Your task to perform on an android device: toggle data saver in the chrome app Image 0: 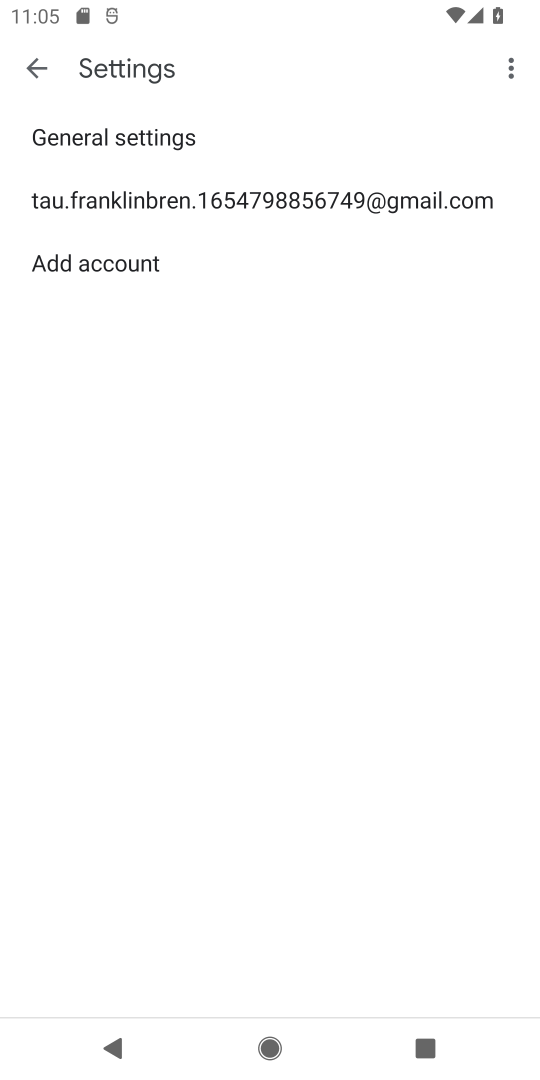
Step 0: press home button
Your task to perform on an android device: toggle data saver in the chrome app Image 1: 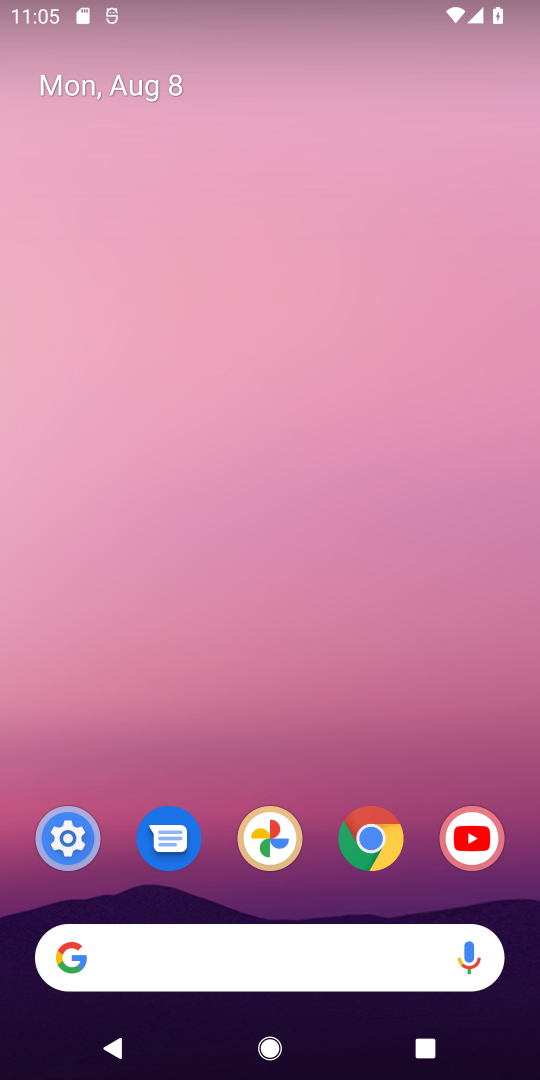
Step 1: drag from (411, 734) to (329, 324)
Your task to perform on an android device: toggle data saver in the chrome app Image 2: 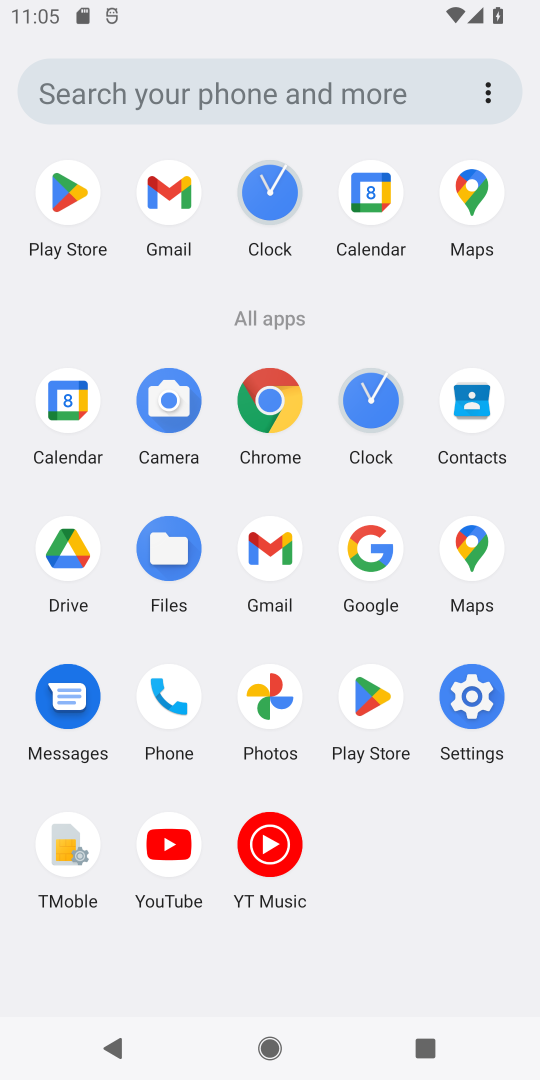
Step 2: click (277, 536)
Your task to perform on an android device: toggle data saver in the chrome app Image 3: 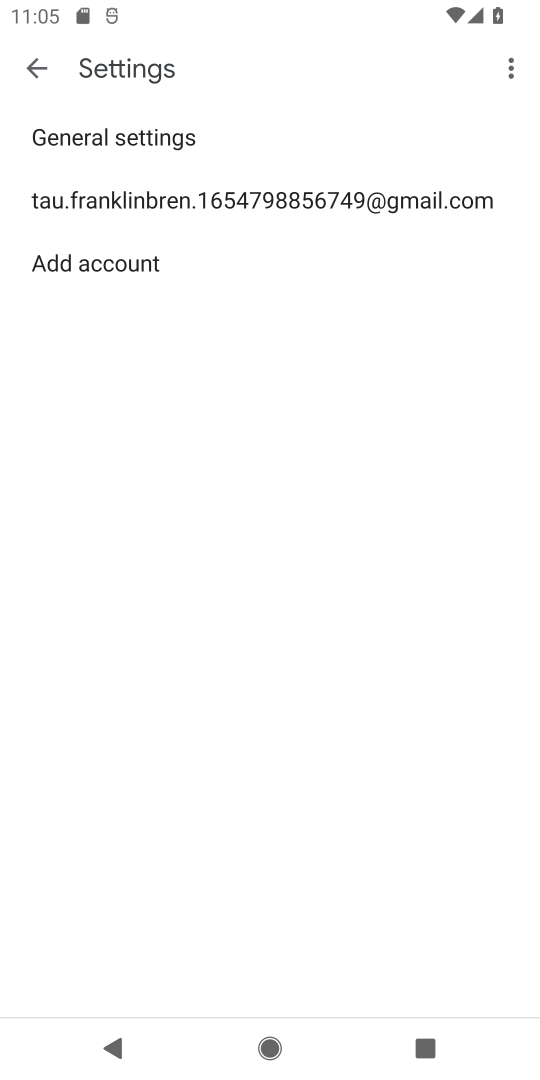
Step 3: click (330, 183)
Your task to perform on an android device: toggle data saver in the chrome app Image 4: 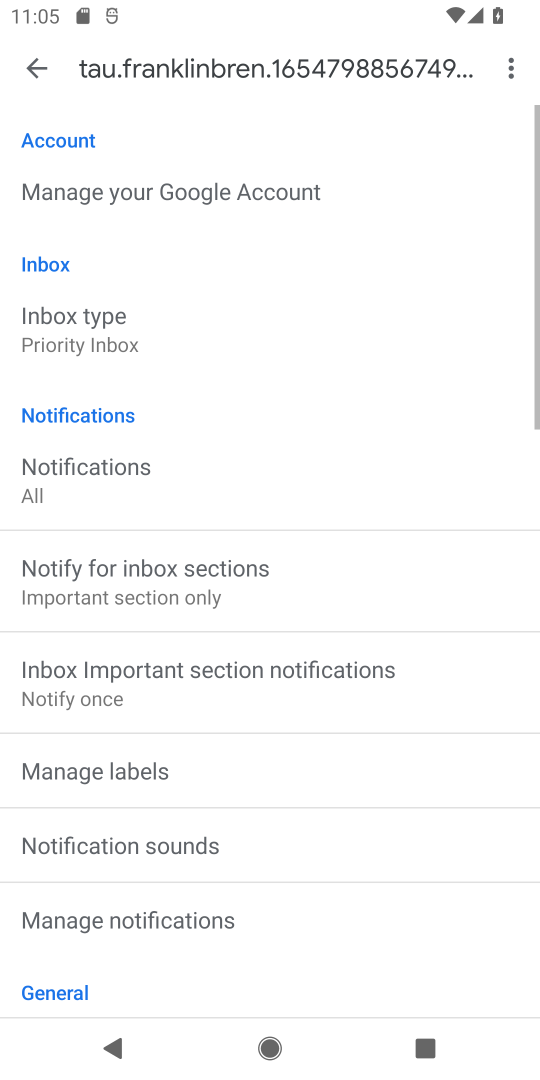
Step 4: click (23, 57)
Your task to perform on an android device: toggle data saver in the chrome app Image 5: 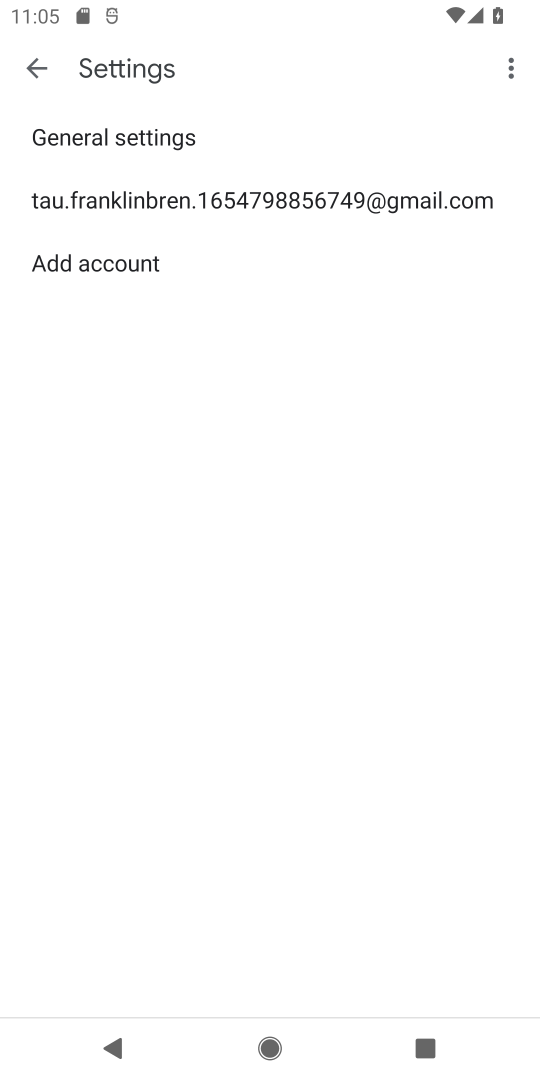
Step 5: click (23, 57)
Your task to perform on an android device: toggle data saver in the chrome app Image 6: 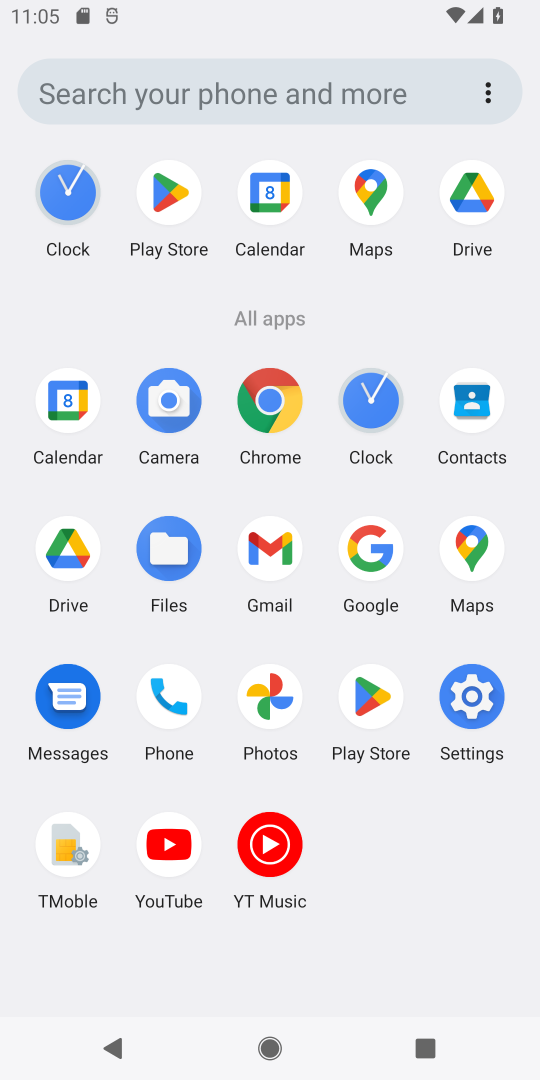
Step 6: click (249, 542)
Your task to perform on an android device: toggle data saver in the chrome app Image 7: 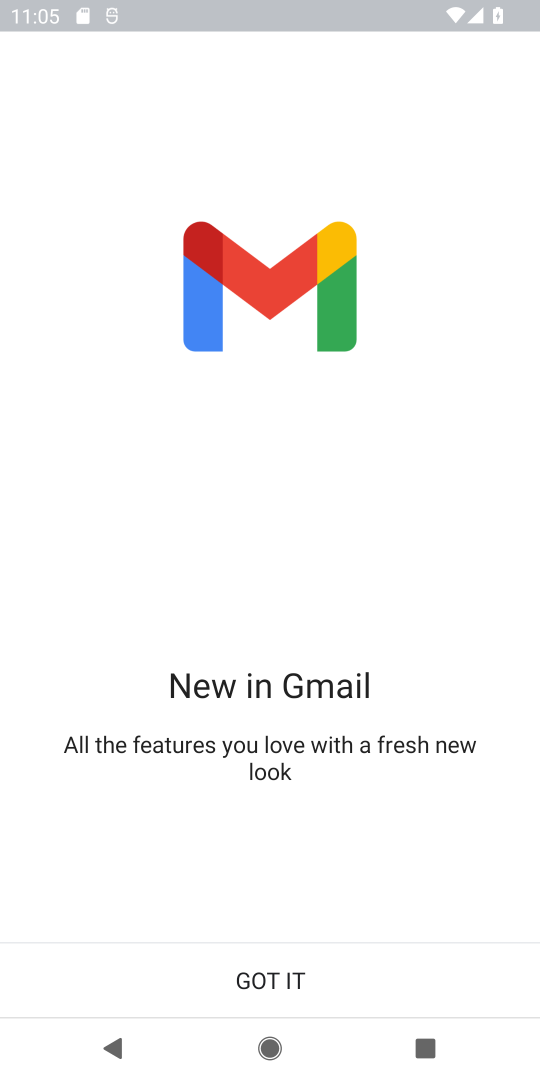
Step 7: click (327, 960)
Your task to perform on an android device: toggle data saver in the chrome app Image 8: 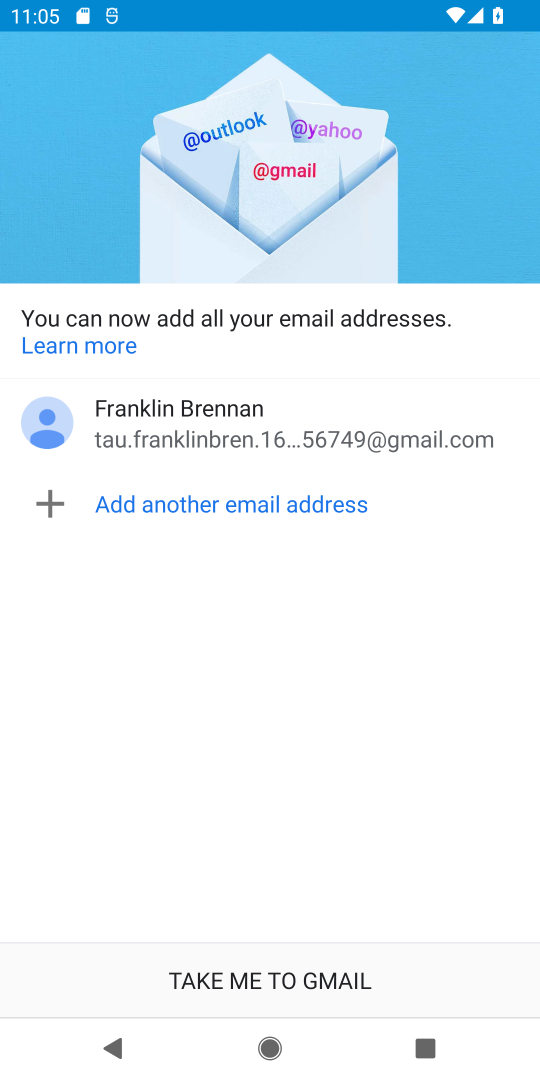
Step 8: click (309, 977)
Your task to perform on an android device: toggle data saver in the chrome app Image 9: 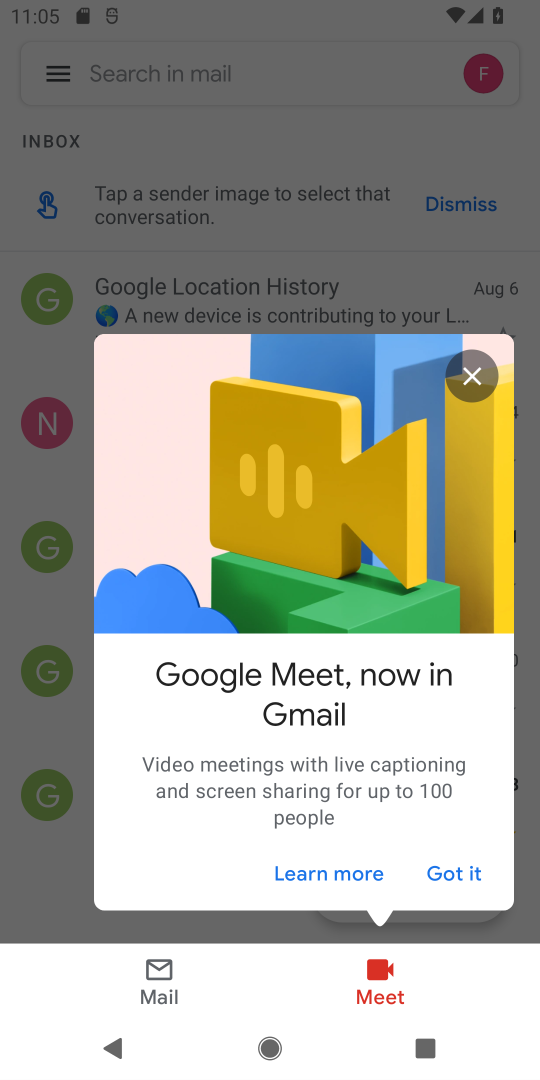
Step 9: click (487, 376)
Your task to perform on an android device: toggle data saver in the chrome app Image 10: 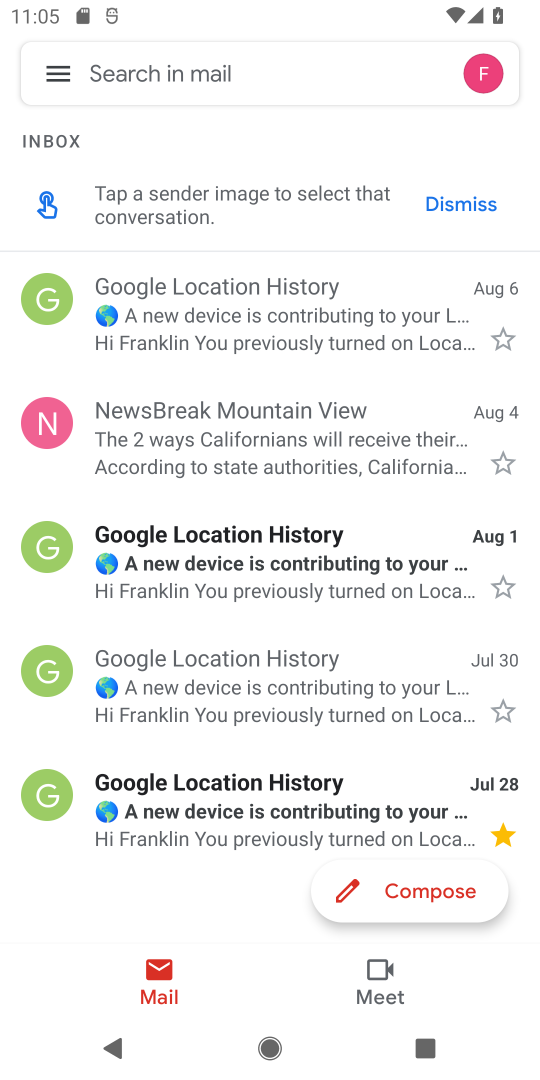
Step 10: press home button
Your task to perform on an android device: toggle data saver in the chrome app Image 11: 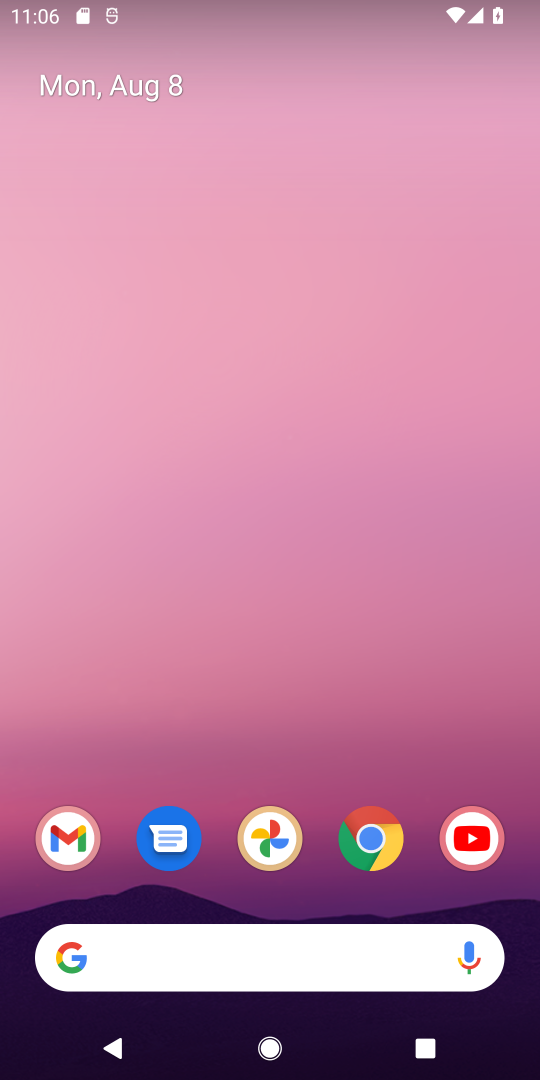
Step 11: click (362, 833)
Your task to perform on an android device: toggle data saver in the chrome app Image 12: 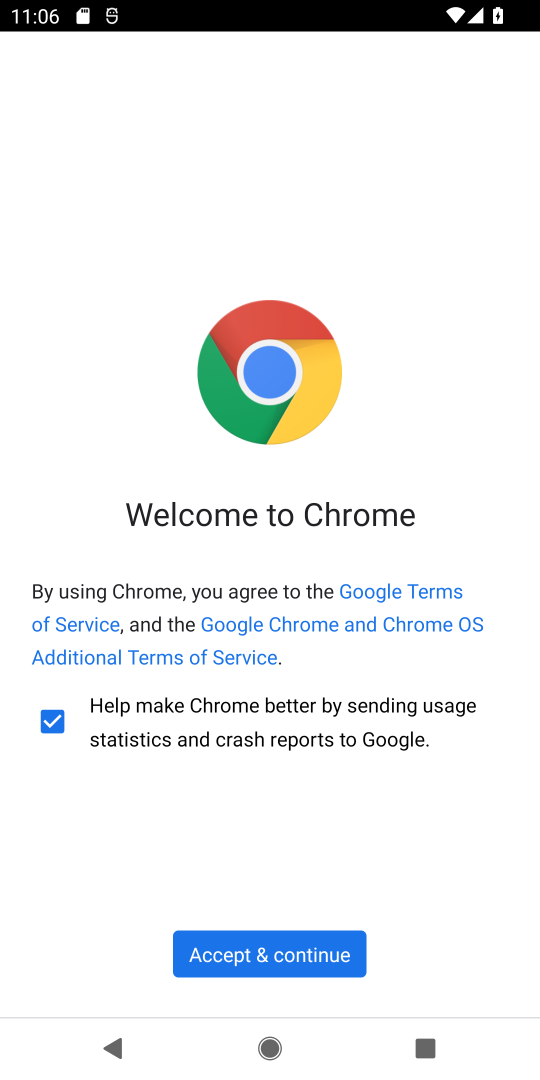
Step 12: click (309, 968)
Your task to perform on an android device: toggle data saver in the chrome app Image 13: 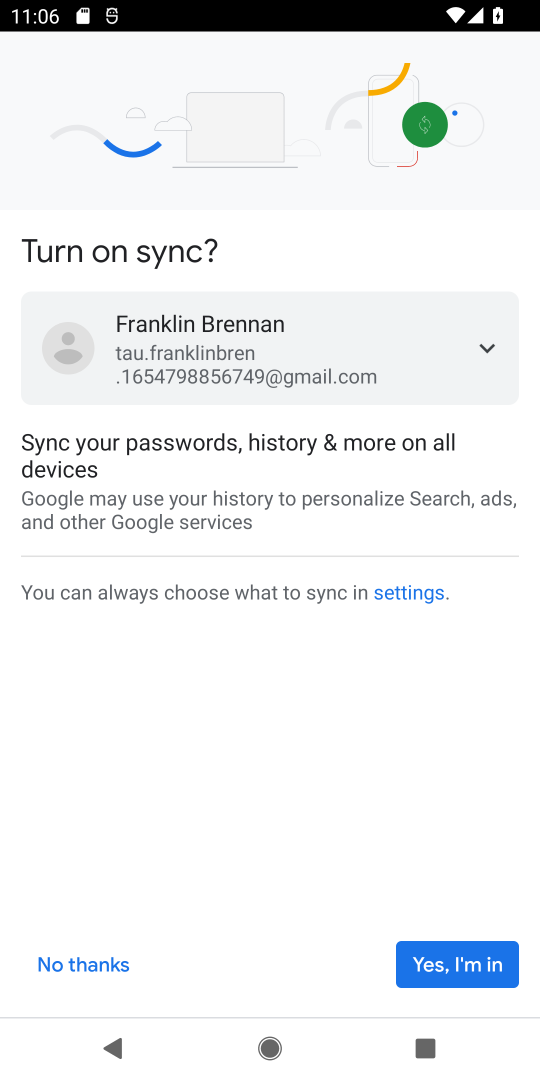
Step 13: click (437, 968)
Your task to perform on an android device: toggle data saver in the chrome app Image 14: 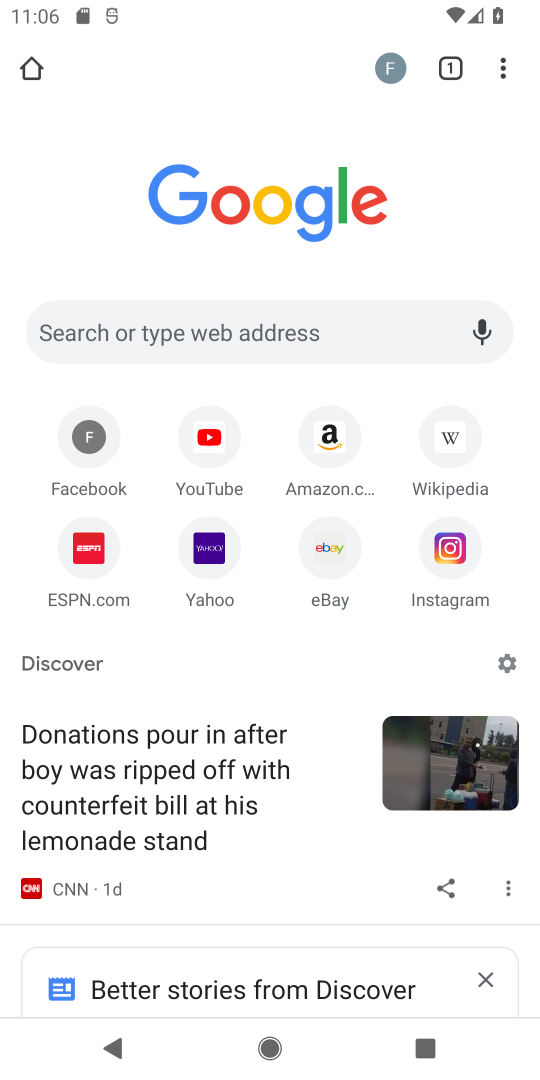
Step 14: click (504, 76)
Your task to perform on an android device: toggle data saver in the chrome app Image 15: 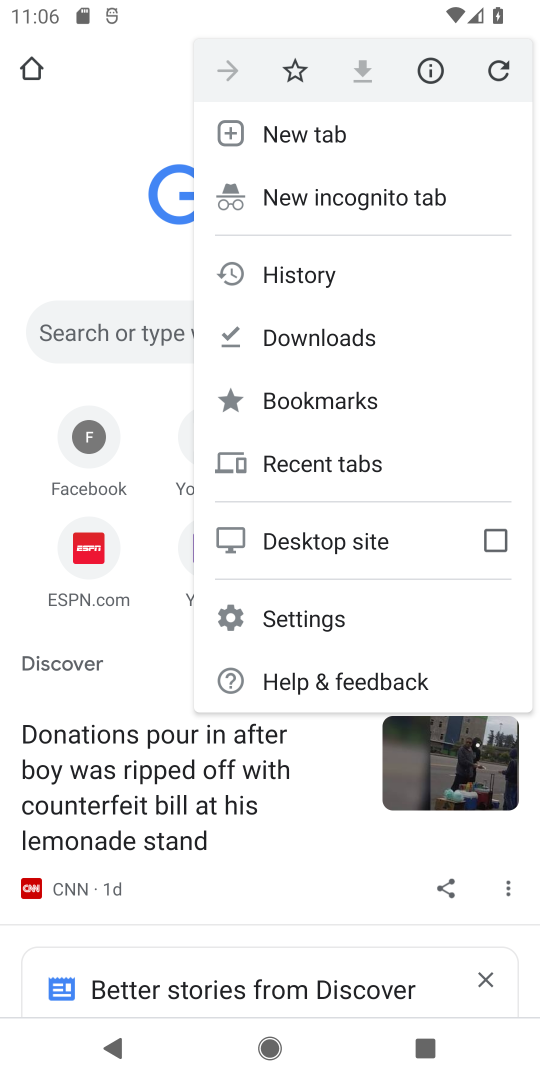
Step 15: click (336, 617)
Your task to perform on an android device: toggle data saver in the chrome app Image 16: 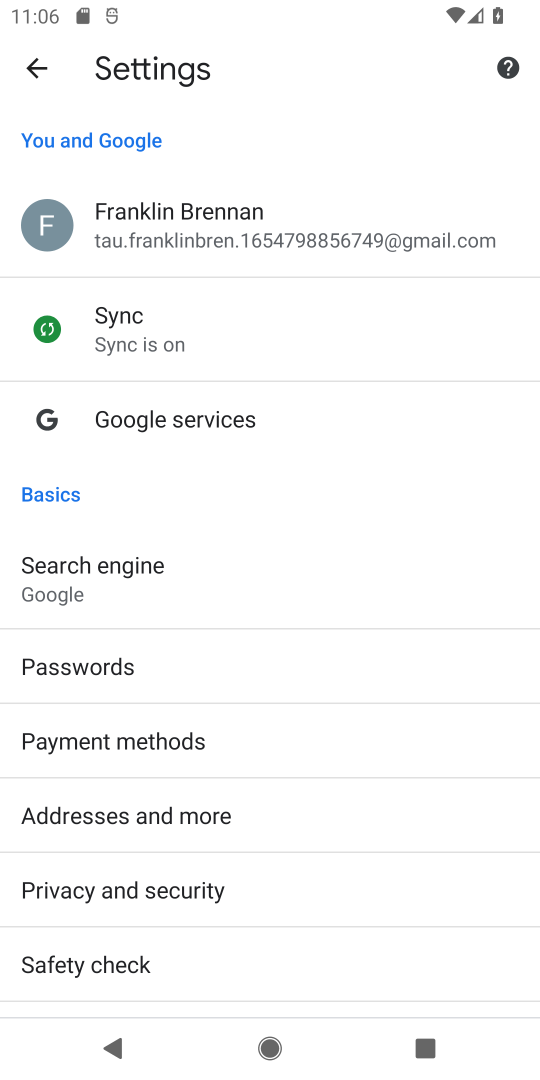
Step 16: drag from (367, 781) to (360, 316)
Your task to perform on an android device: toggle data saver in the chrome app Image 17: 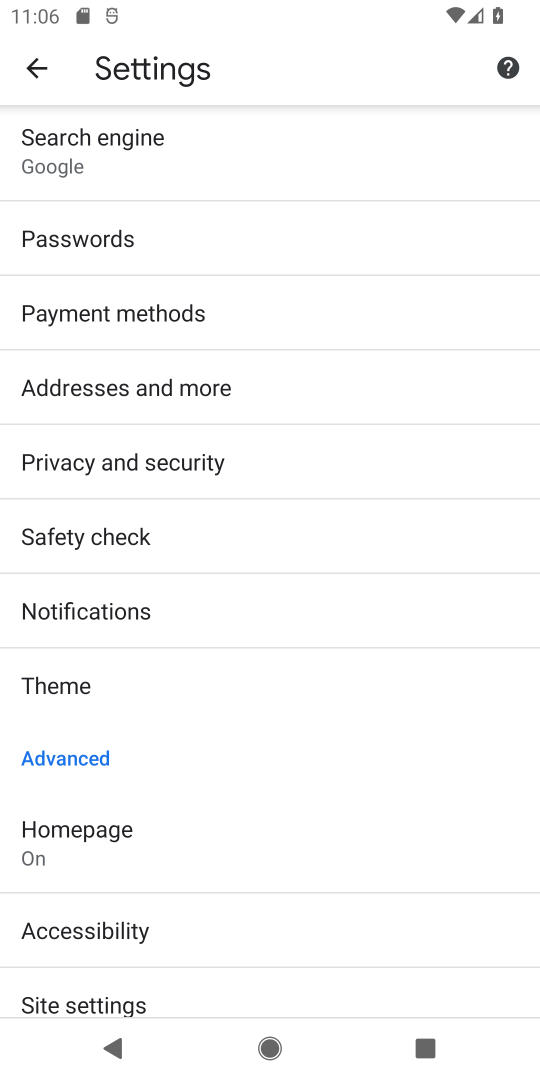
Step 17: drag from (310, 843) to (256, 36)
Your task to perform on an android device: toggle data saver in the chrome app Image 18: 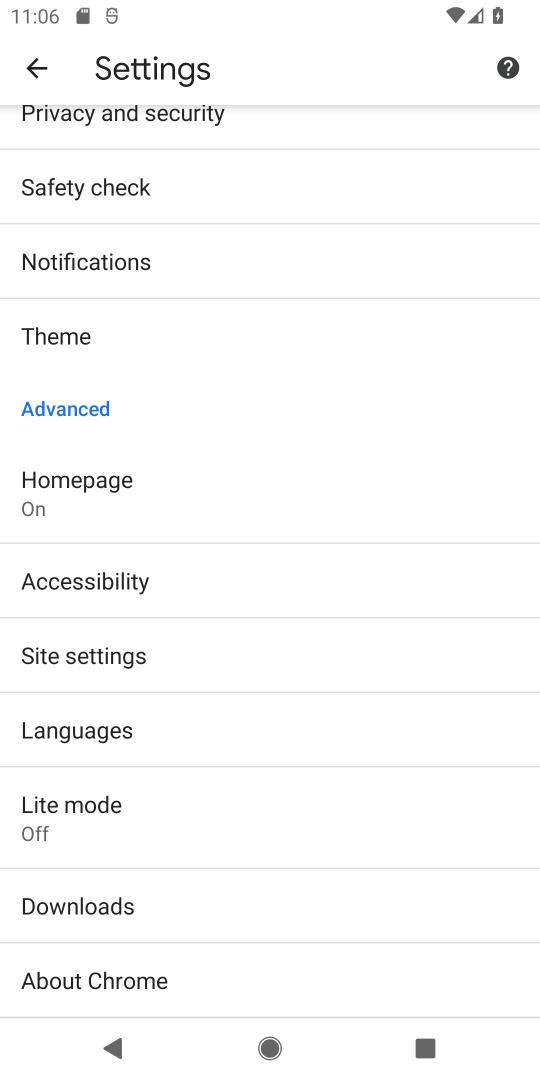
Step 18: click (162, 798)
Your task to perform on an android device: toggle data saver in the chrome app Image 19: 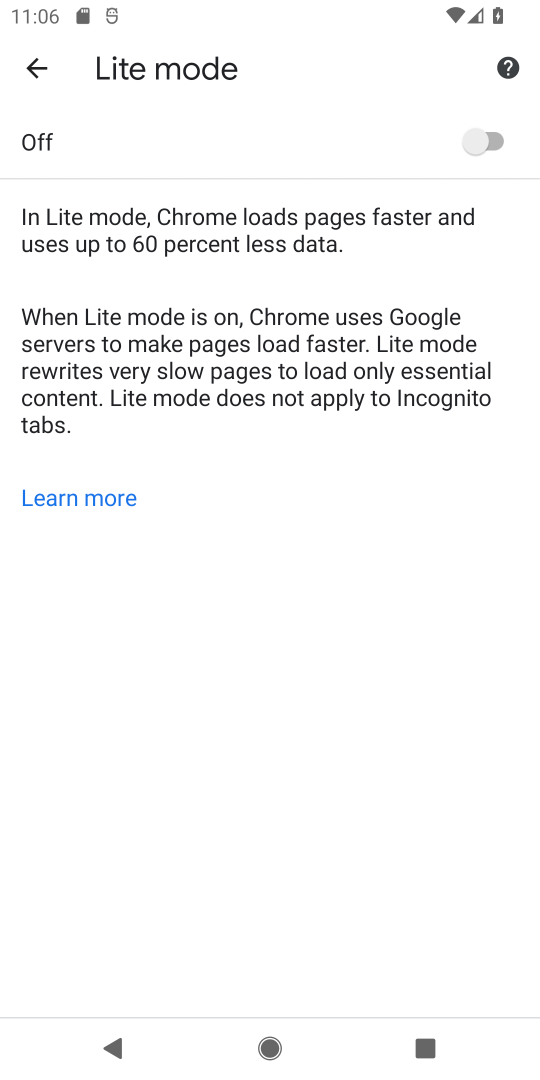
Step 19: click (484, 146)
Your task to perform on an android device: toggle data saver in the chrome app Image 20: 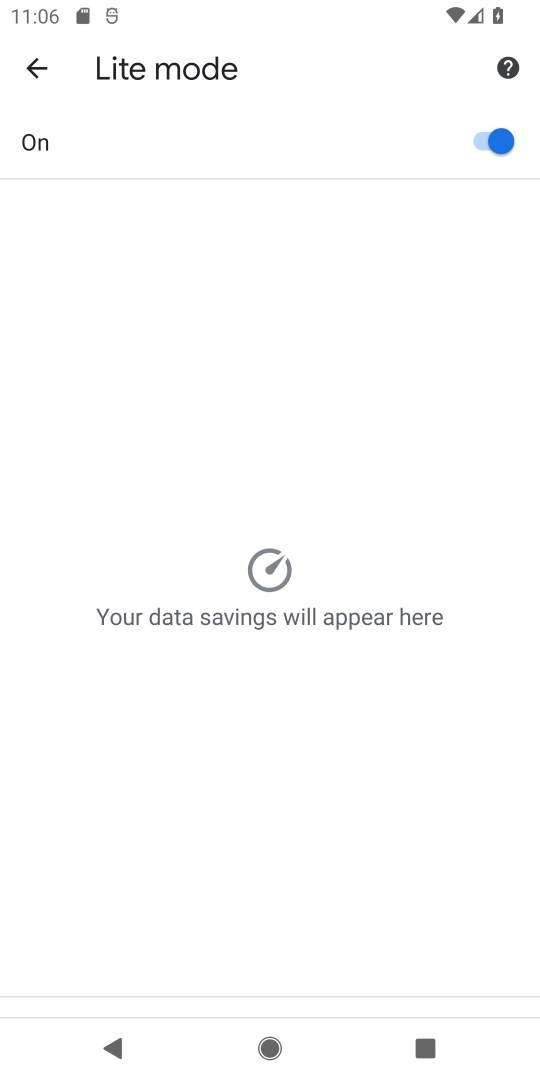
Step 20: task complete